Your task to perform on an android device: Go to Amazon Image 0: 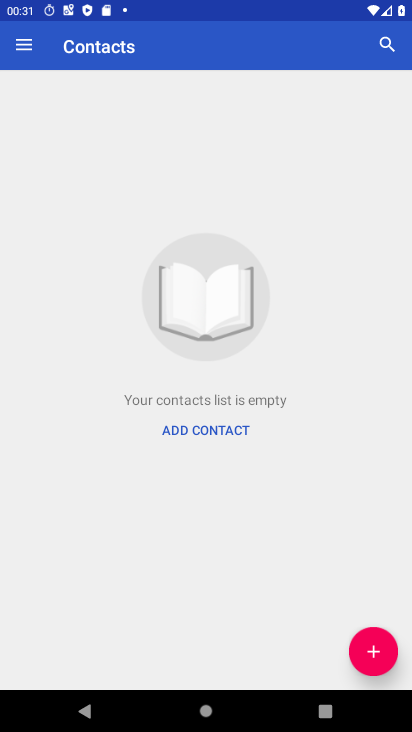
Step 0: press home button
Your task to perform on an android device: Go to Amazon Image 1: 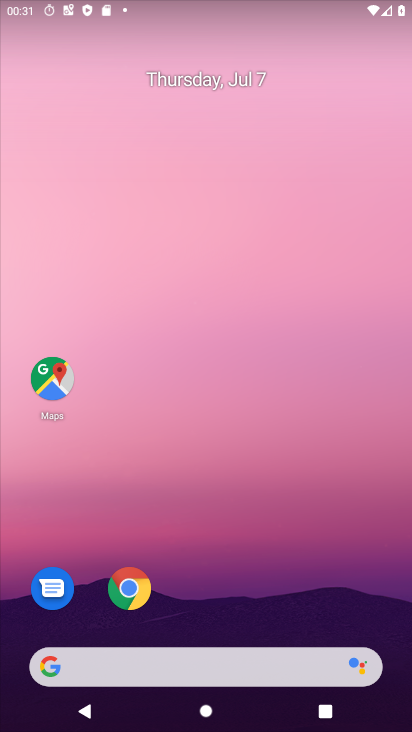
Step 1: click (129, 592)
Your task to perform on an android device: Go to Amazon Image 2: 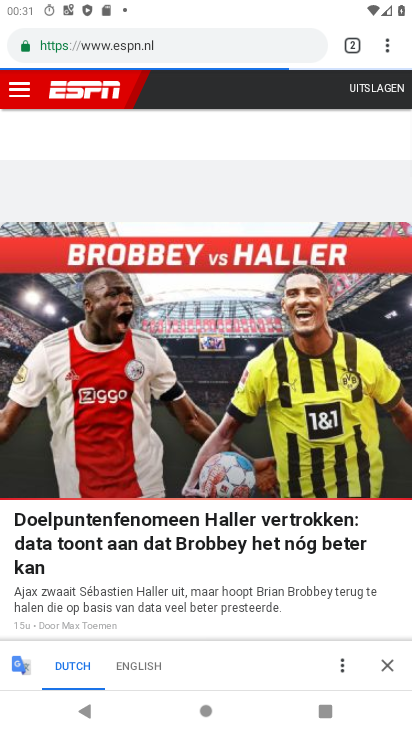
Step 2: click (387, 51)
Your task to perform on an android device: Go to Amazon Image 3: 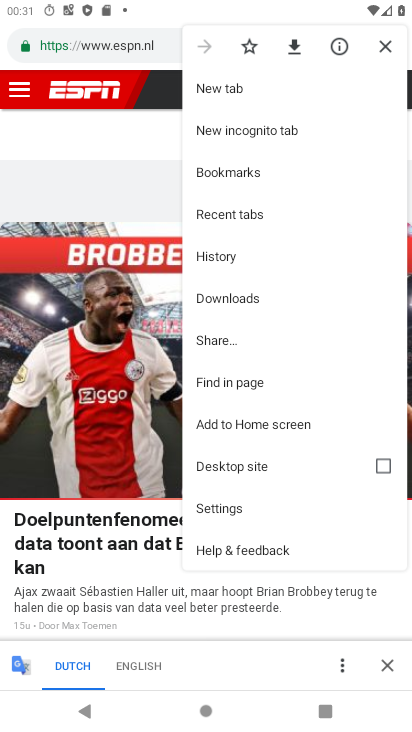
Step 3: click (206, 89)
Your task to perform on an android device: Go to Amazon Image 4: 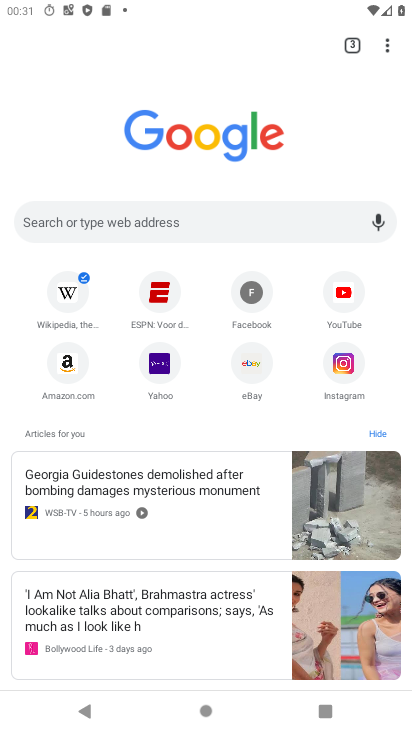
Step 4: click (60, 362)
Your task to perform on an android device: Go to Amazon Image 5: 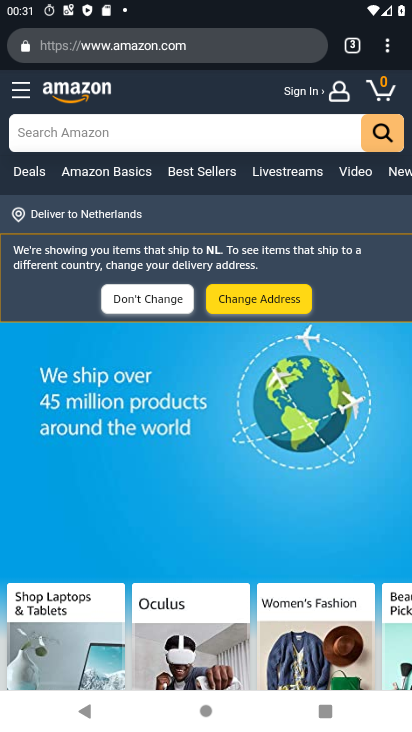
Step 5: task complete